Your task to perform on an android device: delete location history Image 0: 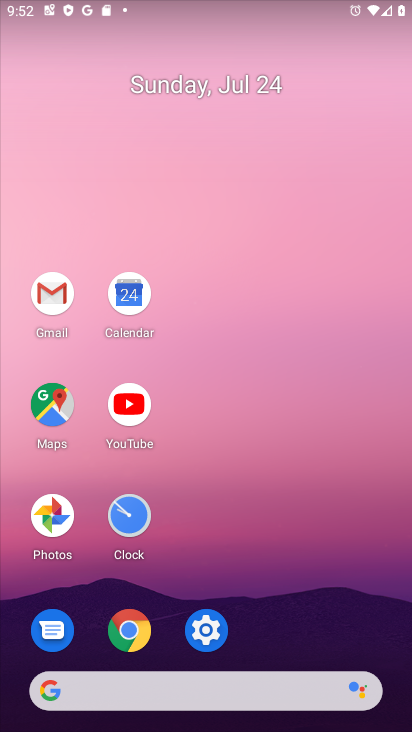
Step 0: drag from (204, 527) to (256, 90)
Your task to perform on an android device: delete location history Image 1: 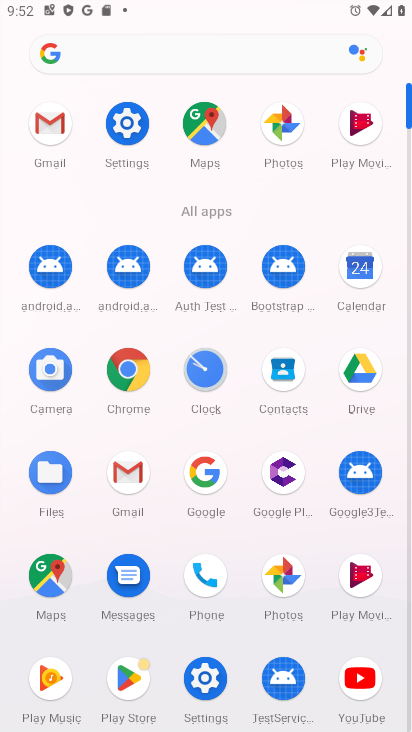
Step 1: click (51, 580)
Your task to perform on an android device: delete location history Image 2: 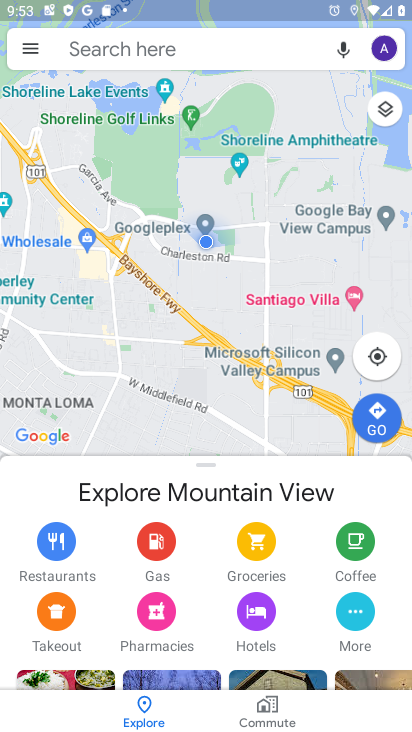
Step 2: click (33, 42)
Your task to perform on an android device: delete location history Image 3: 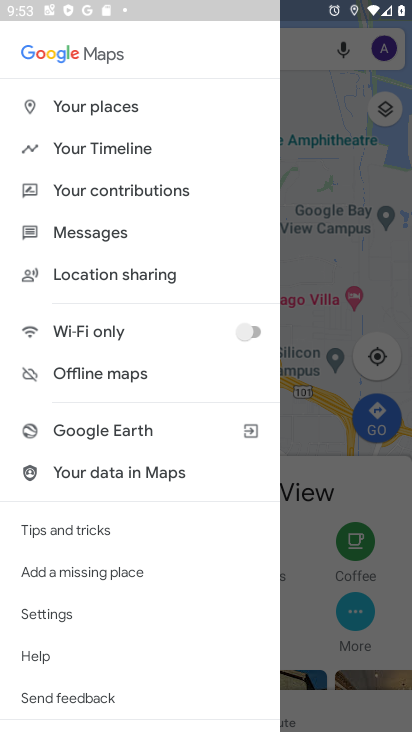
Step 3: click (103, 145)
Your task to perform on an android device: delete location history Image 4: 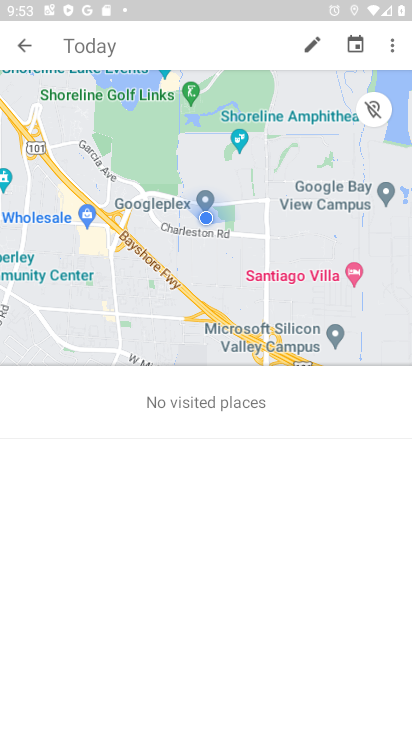
Step 4: click (390, 45)
Your task to perform on an android device: delete location history Image 5: 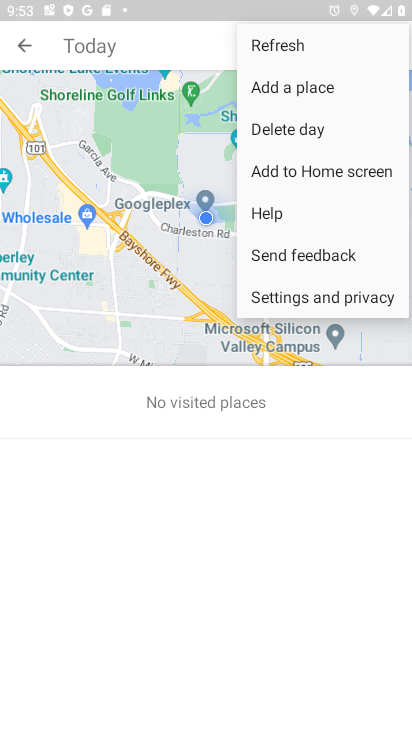
Step 5: click (289, 302)
Your task to perform on an android device: delete location history Image 6: 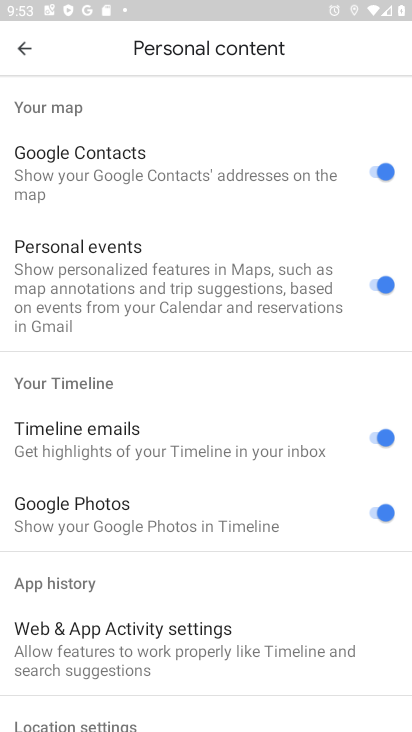
Step 6: drag from (146, 565) to (146, 222)
Your task to perform on an android device: delete location history Image 7: 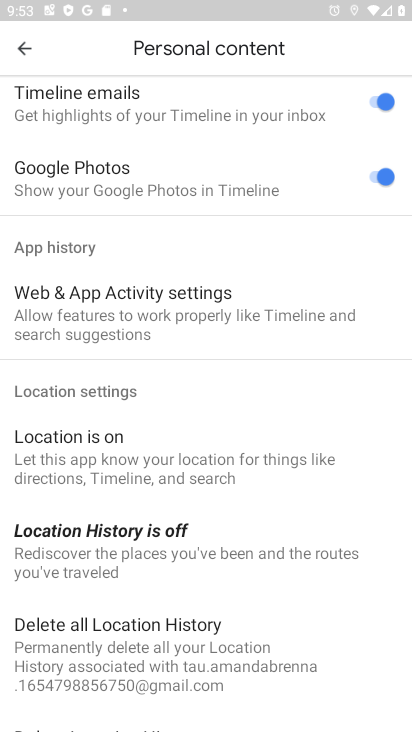
Step 7: click (102, 626)
Your task to perform on an android device: delete location history Image 8: 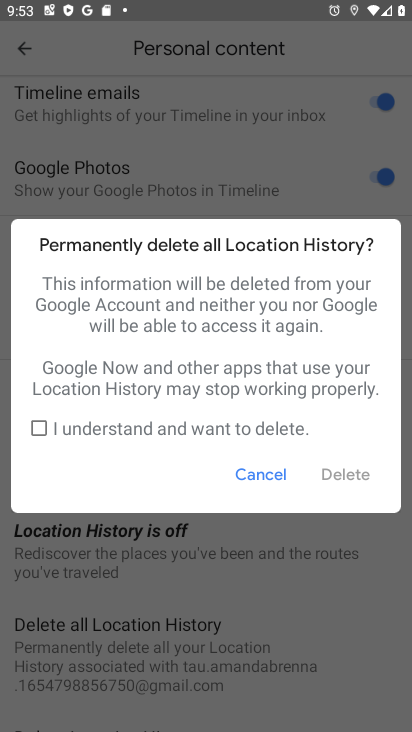
Step 8: click (36, 428)
Your task to perform on an android device: delete location history Image 9: 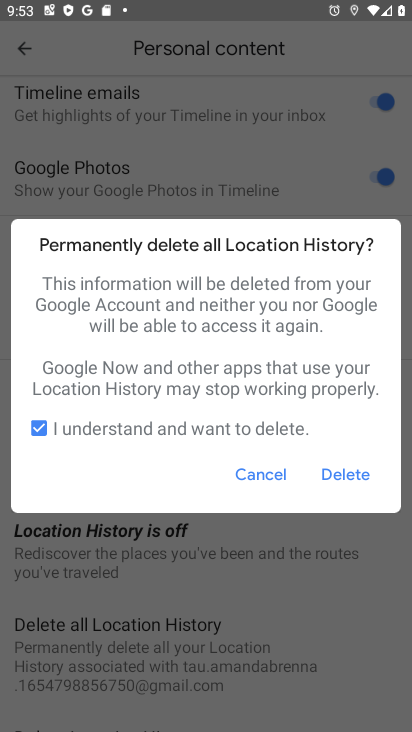
Step 9: click (332, 473)
Your task to perform on an android device: delete location history Image 10: 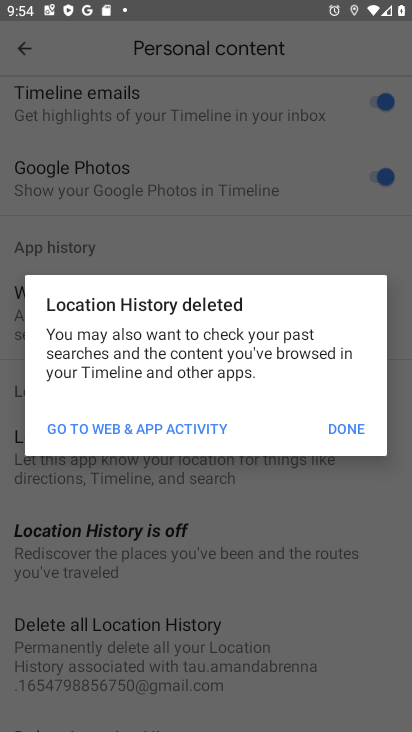
Step 10: click (350, 425)
Your task to perform on an android device: delete location history Image 11: 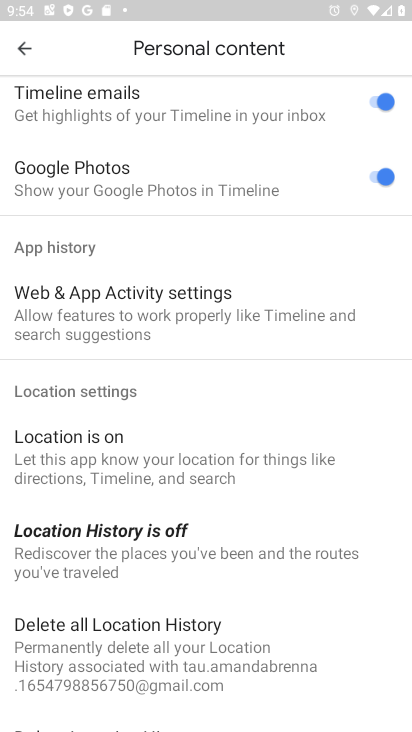
Step 11: task complete